Your task to perform on an android device: When is my next meeting? Image 0: 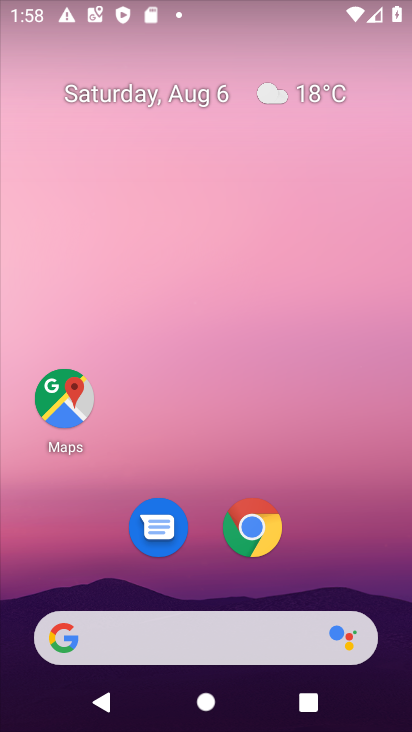
Step 0: drag from (49, 549) to (262, 133)
Your task to perform on an android device: When is my next meeting? Image 1: 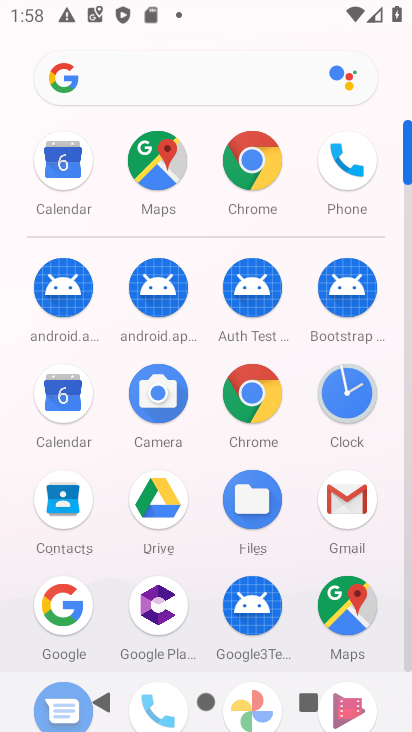
Step 1: click (64, 391)
Your task to perform on an android device: When is my next meeting? Image 2: 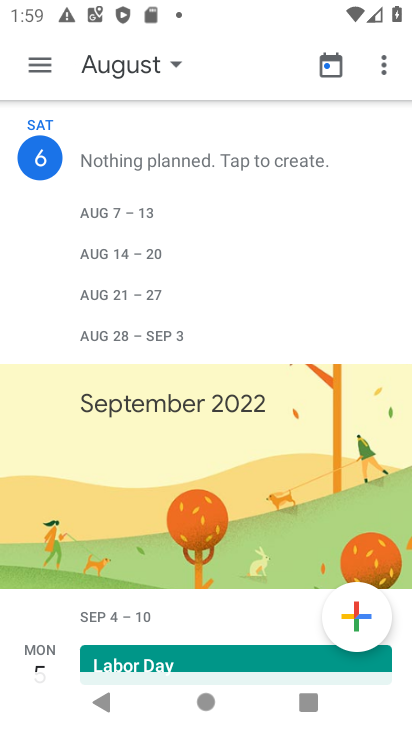
Step 2: task complete